Your task to perform on an android device: see sites visited before in the chrome app Image 0: 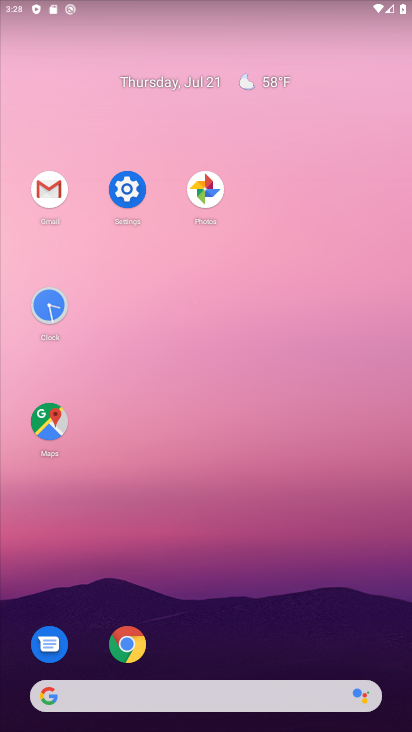
Step 0: click (126, 646)
Your task to perform on an android device: see sites visited before in the chrome app Image 1: 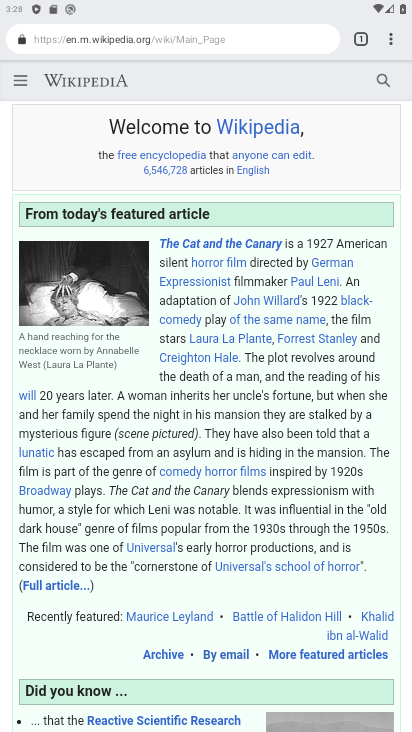
Step 1: click (391, 37)
Your task to perform on an android device: see sites visited before in the chrome app Image 2: 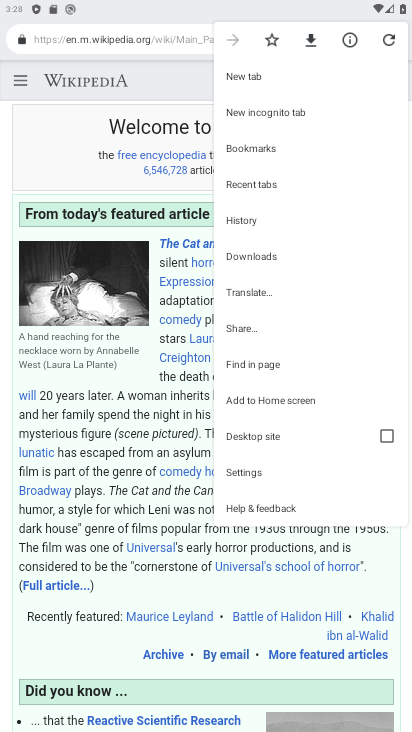
Step 2: click (281, 184)
Your task to perform on an android device: see sites visited before in the chrome app Image 3: 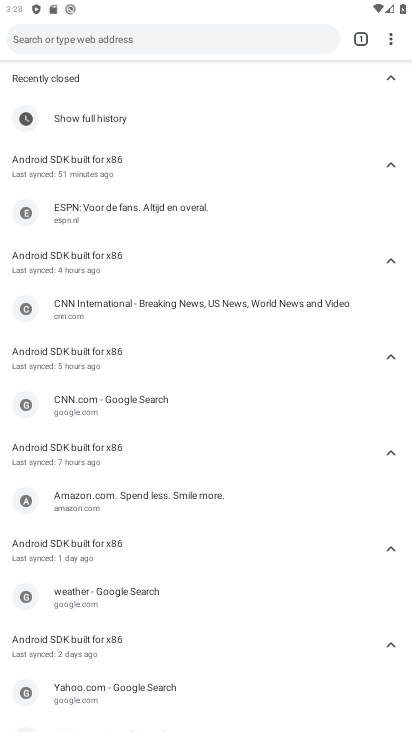
Step 3: task complete